Your task to perform on an android device: toggle javascript in the chrome app Image 0: 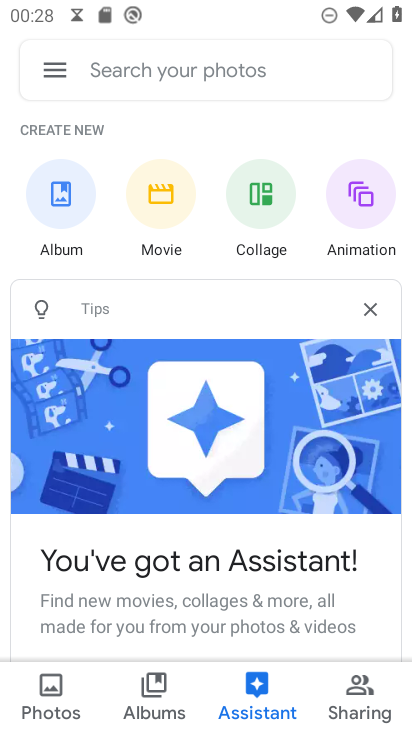
Step 0: press home button
Your task to perform on an android device: toggle javascript in the chrome app Image 1: 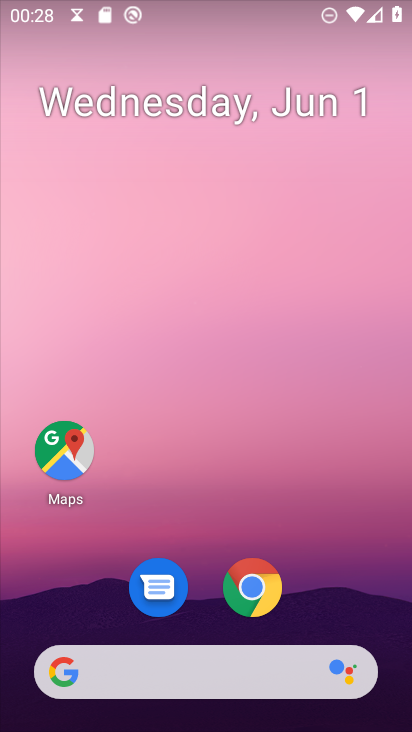
Step 1: click (244, 586)
Your task to perform on an android device: toggle javascript in the chrome app Image 2: 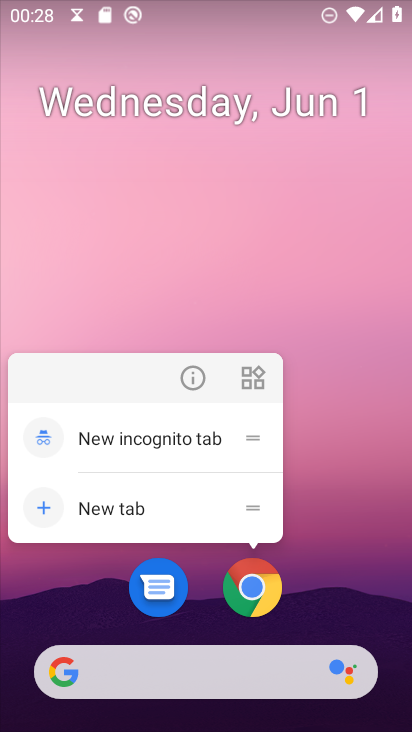
Step 2: click (245, 585)
Your task to perform on an android device: toggle javascript in the chrome app Image 3: 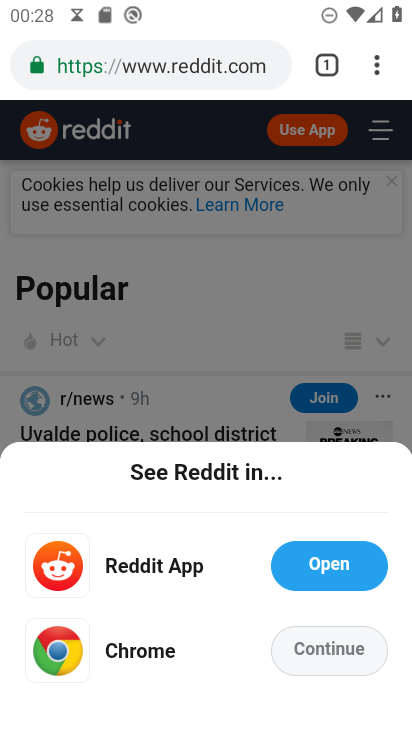
Step 3: click (374, 72)
Your task to perform on an android device: toggle javascript in the chrome app Image 4: 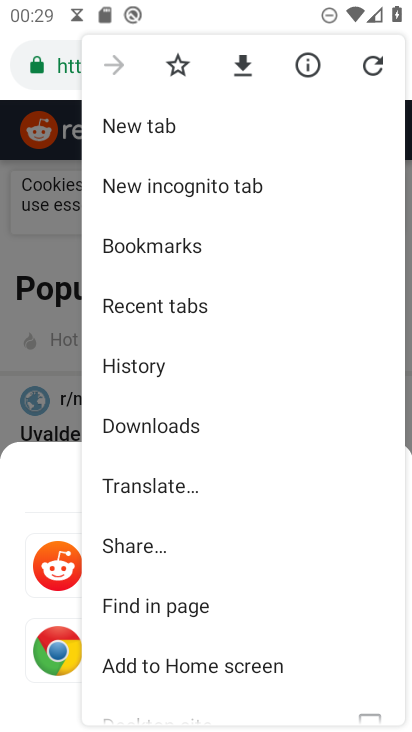
Step 4: drag from (187, 652) to (129, 305)
Your task to perform on an android device: toggle javascript in the chrome app Image 5: 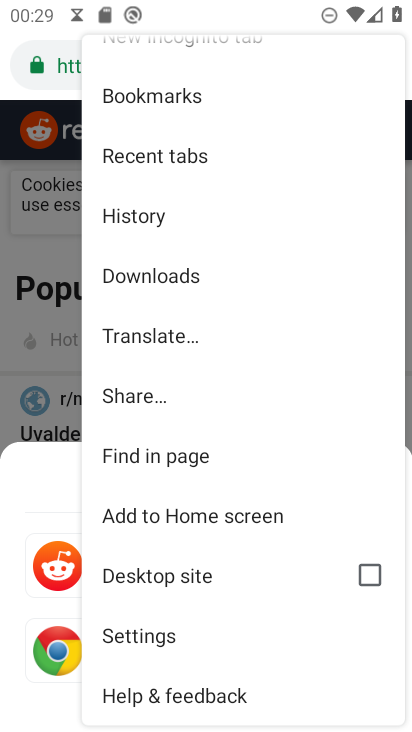
Step 5: click (126, 630)
Your task to perform on an android device: toggle javascript in the chrome app Image 6: 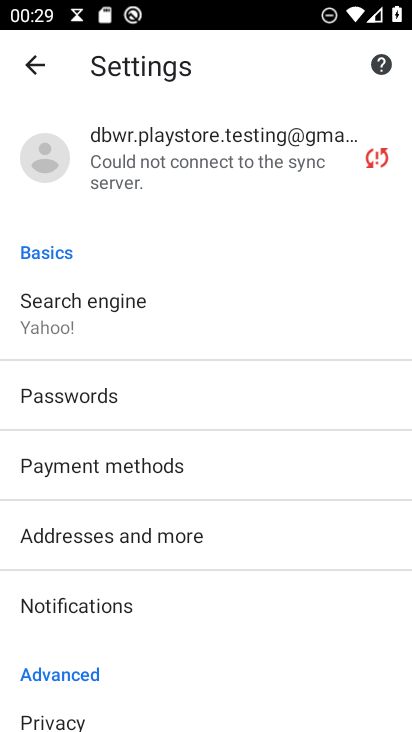
Step 6: drag from (234, 686) to (170, 270)
Your task to perform on an android device: toggle javascript in the chrome app Image 7: 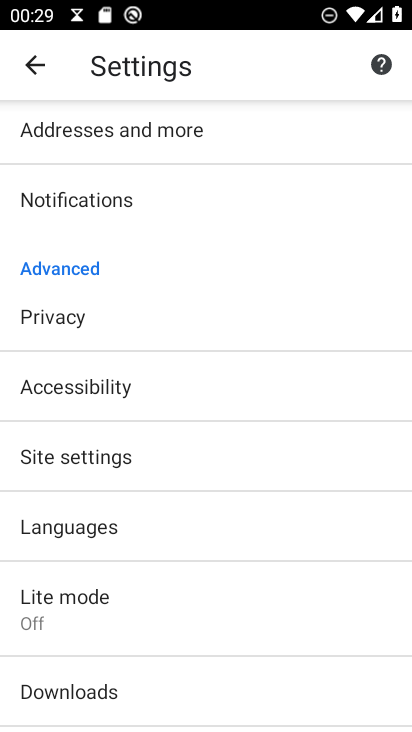
Step 7: click (91, 461)
Your task to perform on an android device: toggle javascript in the chrome app Image 8: 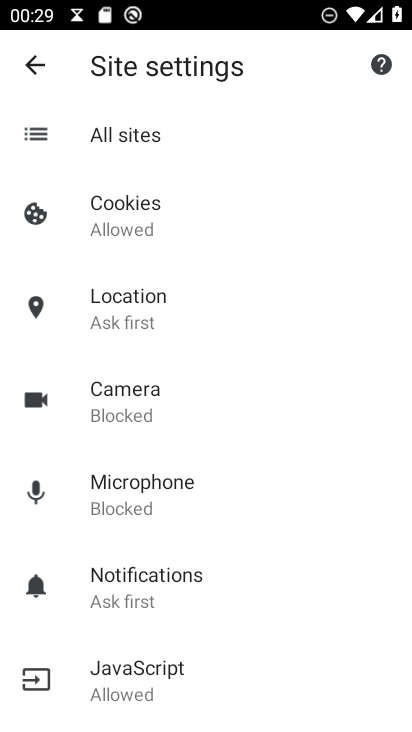
Step 8: click (137, 684)
Your task to perform on an android device: toggle javascript in the chrome app Image 9: 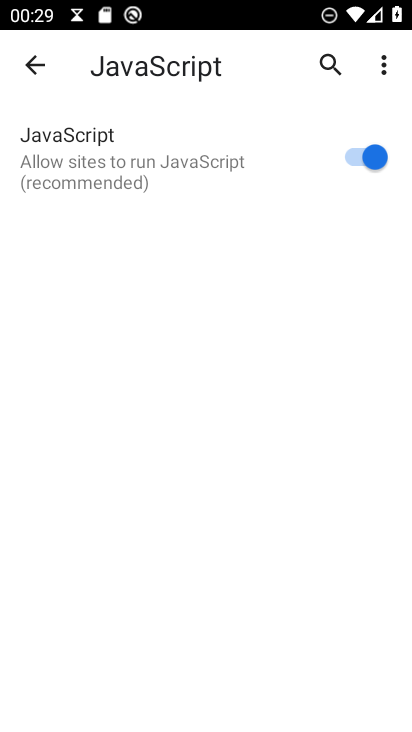
Step 9: click (383, 137)
Your task to perform on an android device: toggle javascript in the chrome app Image 10: 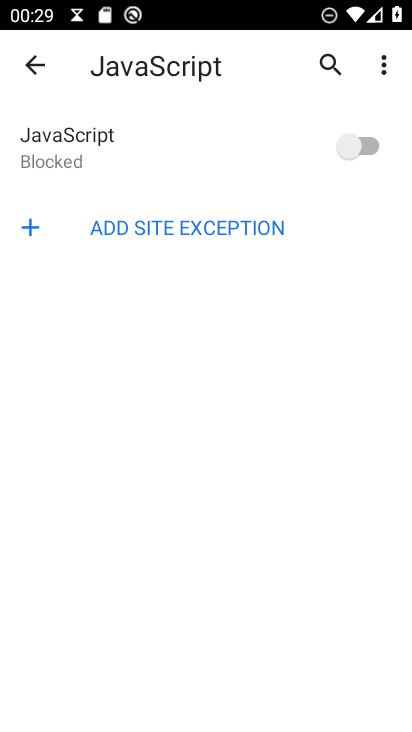
Step 10: task complete